Your task to perform on an android device: Check the weather Image 0: 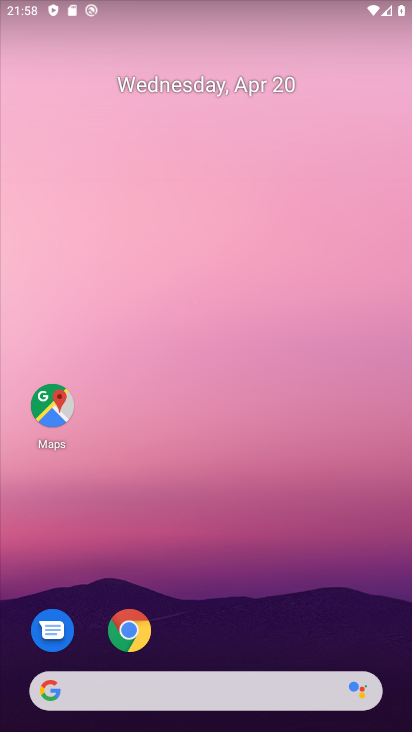
Step 0: drag from (213, 658) to (251, 130)
Your task to perform on an android device: Check the weather Image 1: 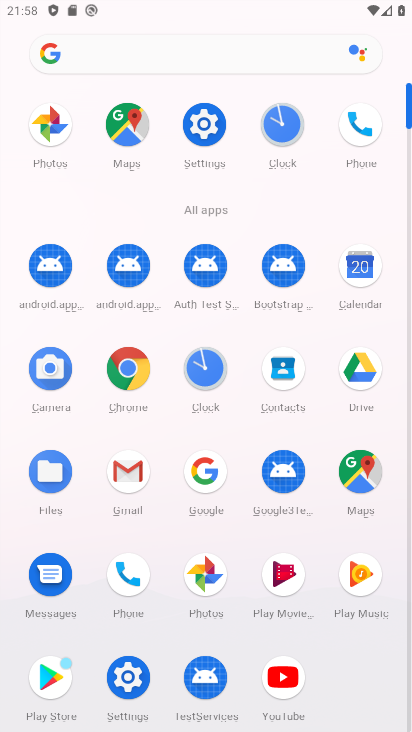
Step 1: click (206, 465)
Your task to perform on an android device: Check the weather Image 2: 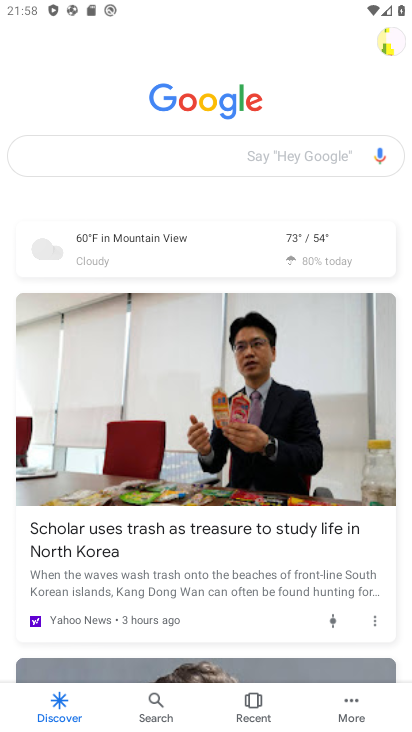
Step 2: click (118, 230)
Your task to perform on an android device: Check the weather Image 3: 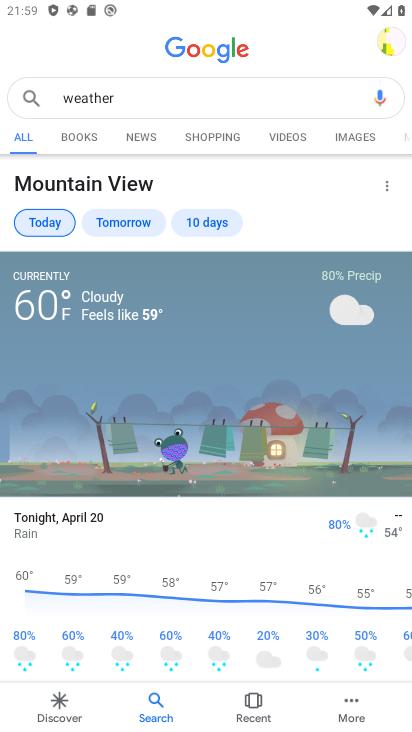
Step 3: task complete